Your task to perform on an android device: Open the calendar app, open the side menu, and click the "Day" option Image 0: 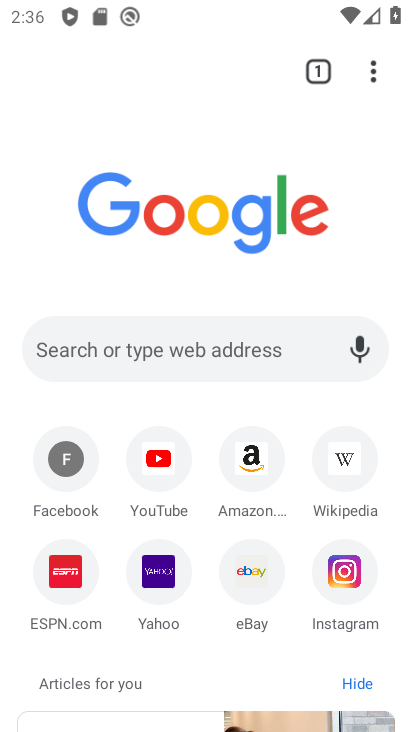
Step 0: press home button
Your task to perform on an android device: Open the calendar app, open the side menu, and click the "Day" option Image 1: 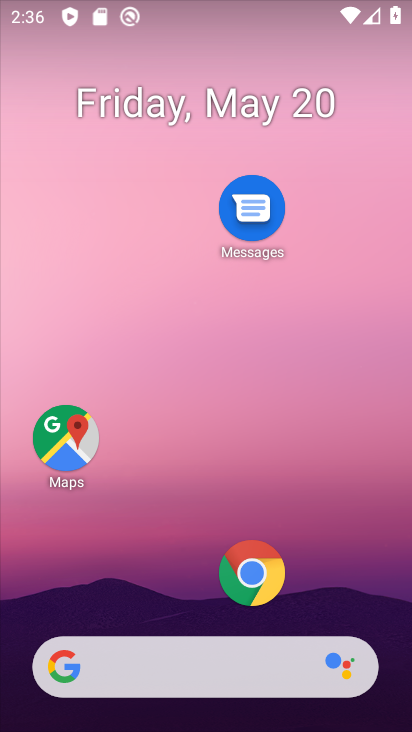
Step 1: click (249, 94)
Your task to perform on an android device: Open the calendar app, open the side menu, and click the "Day" option Image 2: 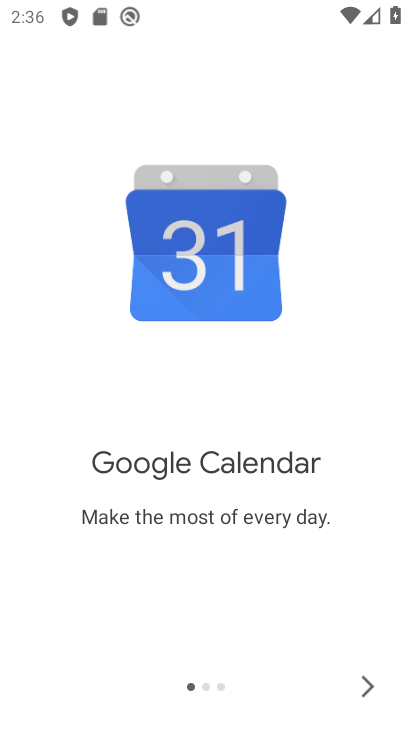
Step 2: click (382, 694)
Your task to perform on an android device: Open the calendar app, open the side menu, and click the "Day" option Image 3: 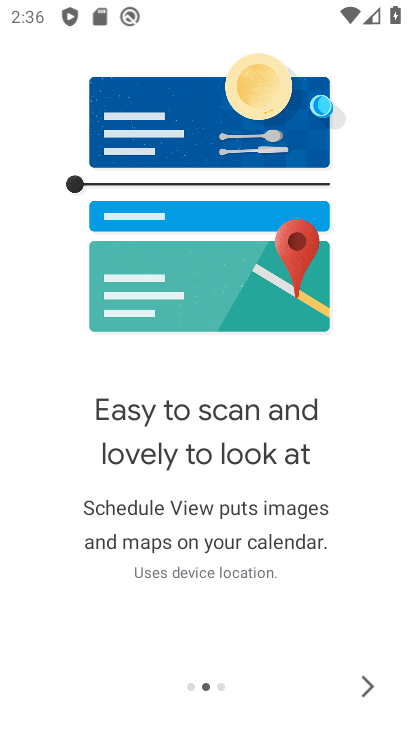
Step 3: click (382, 694)
Your task to perform on an android device: Open the calendar app, open the side menu, and click the "Day" option Image 4: 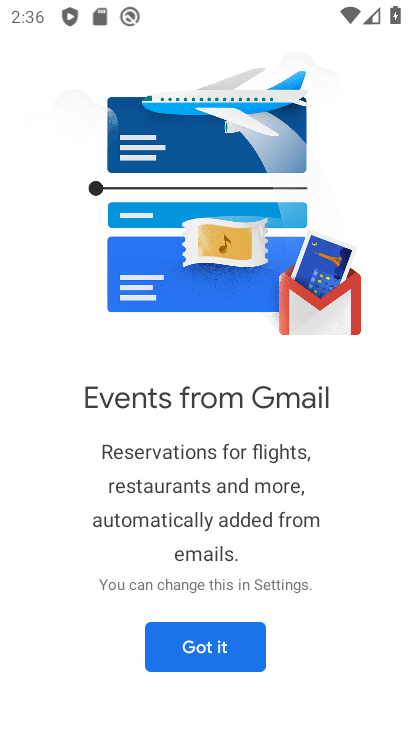
Step 4: click (232, 637)
Your task to perform on an android device: Open the calendar app, open the side menu, and click the "Day" option Image 5: 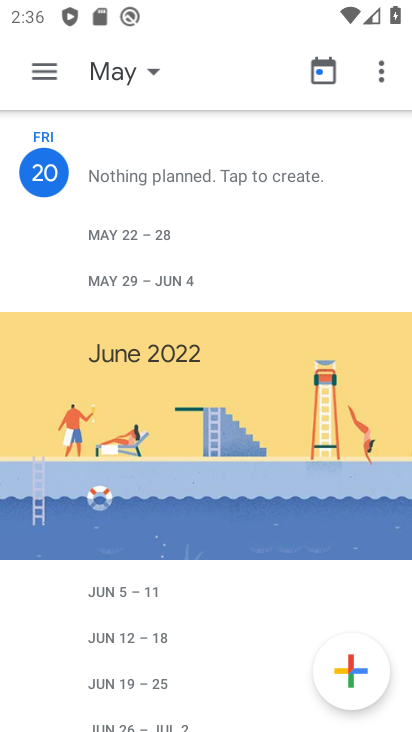
Step 5: click (53, 73)
Your task to perform on an android device: Open the calendar app, open the side menu, and click the "Day" option Image 6: 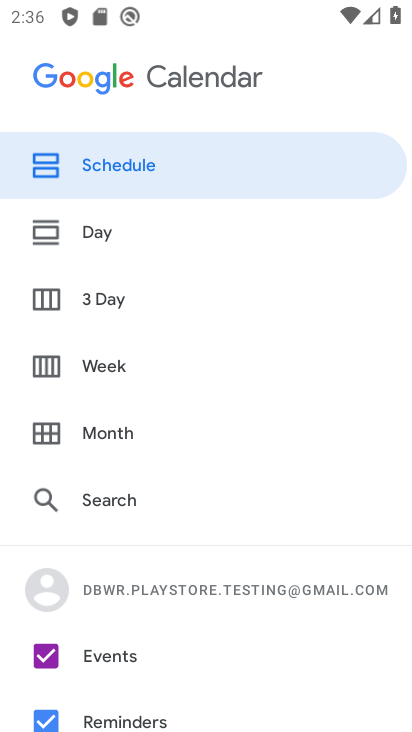
Step 6: click (99, 235)
Your task to perform on an android device: Open the calendar app, open the side menu, and click the "Day" option Image 7: 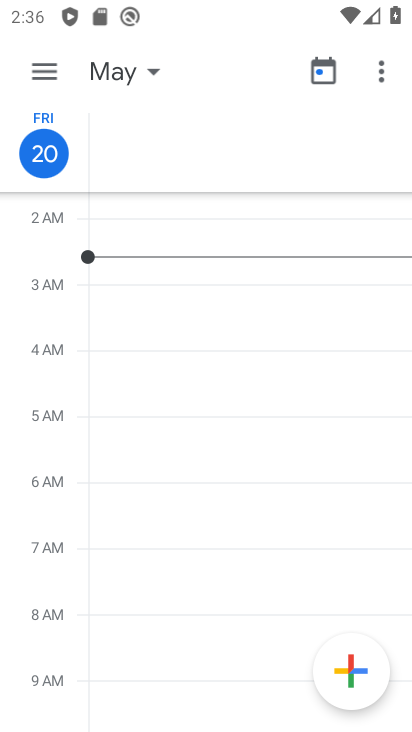
Step 7: task complete